Your task to perform on an android device: turn vacation reply on in the gmail app Image 0: 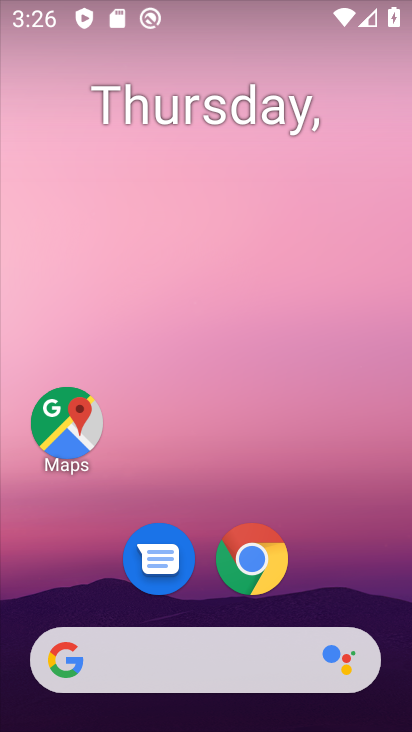
Step 0: drag from (340, 572) to (342, 196)
Your task to perform on an android device: turn vacation reply on in the gmail app Image 1: 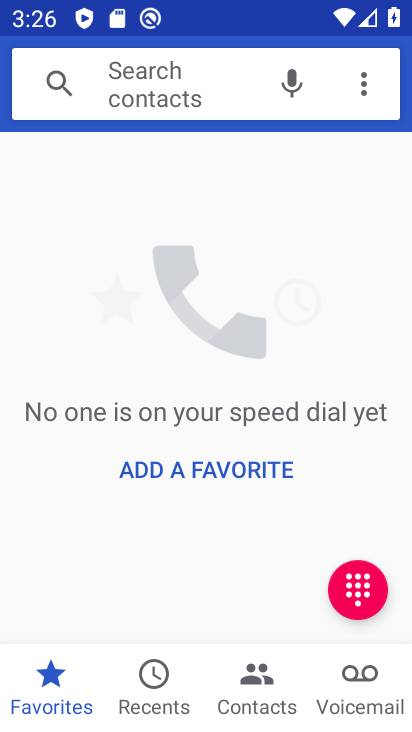
Step 1: press home button
Your task to perform on an android device: turn vacation reply on in the gmail app Image 2: 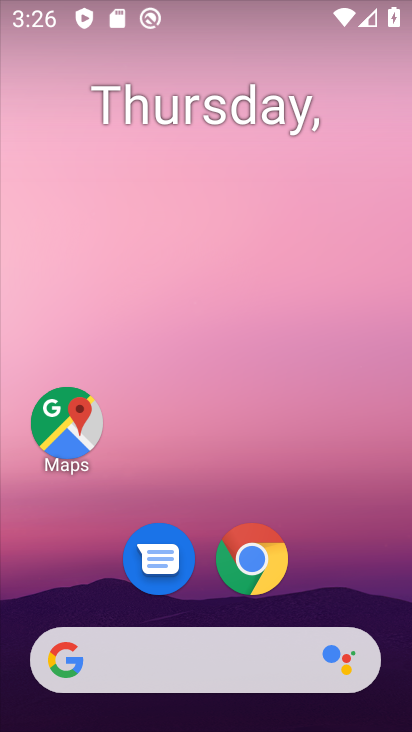
Step 2: drag from (293, 366) to (277, 143)
Your task to perform on an android device: turn vacation reply on in the gmail app Image 3: 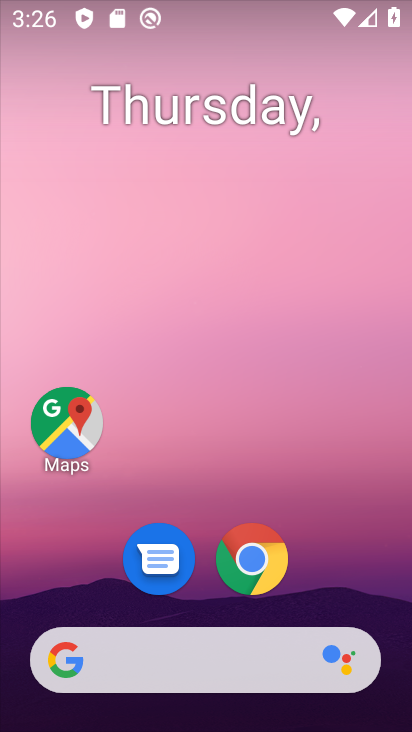
Step 3: drag from (319, 579) to (298, 249)
Your task to perform on an android device: turn vacation reply on in the gmail app Image 4: 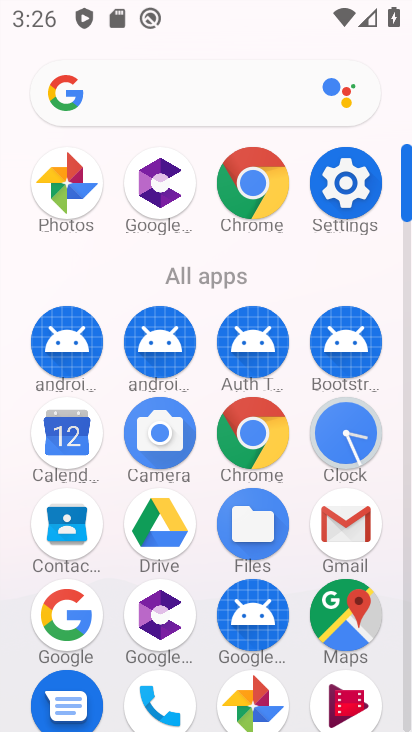
Step 4: click (354, 541)
Your task to perform on an android device: turn vacation reply on in the gmail app Image 5: 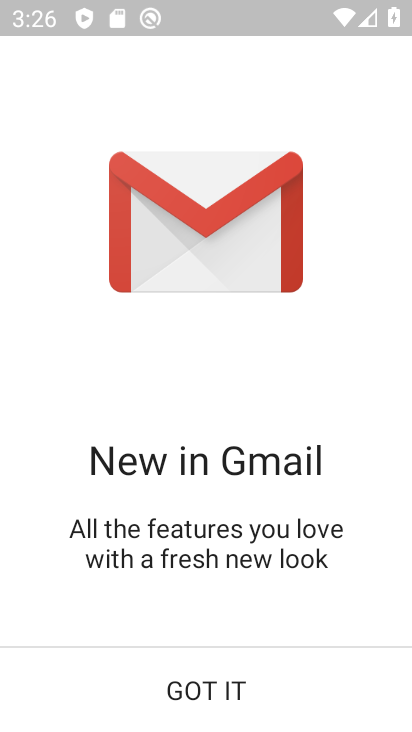
Step 5: click (210, 694)
Your task to perform on an android device: turn vacation reply on in the gmail app Image 6: 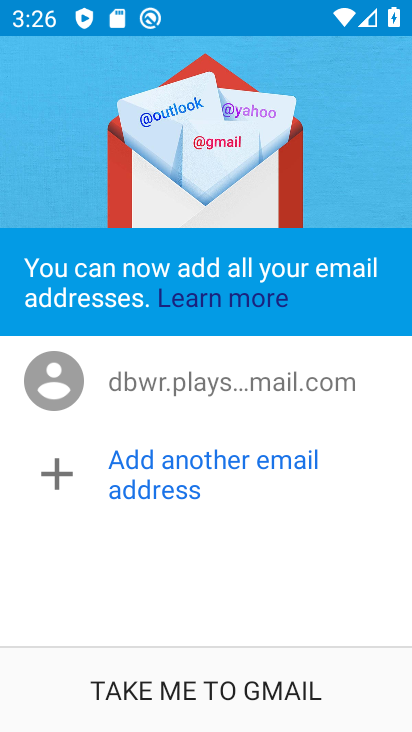
Step 6: click (228, 682)
Your task to perform on an android device: turn vacation reply on in the gmail app Image 7: 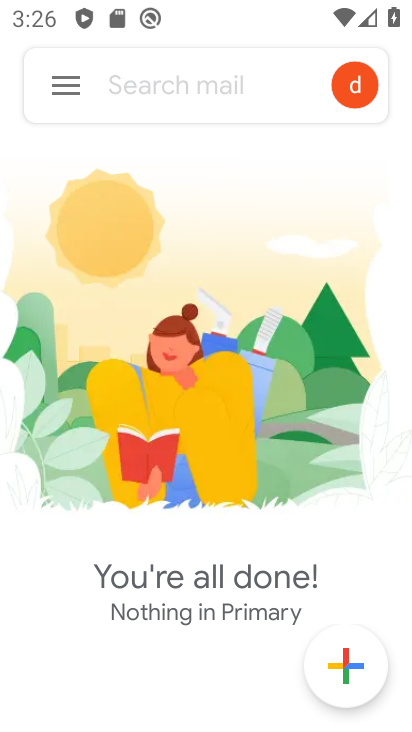
Step 7: click (67, 90)
Your task to perform on an android device: turn vacation reply on in the gmail app Image 8: 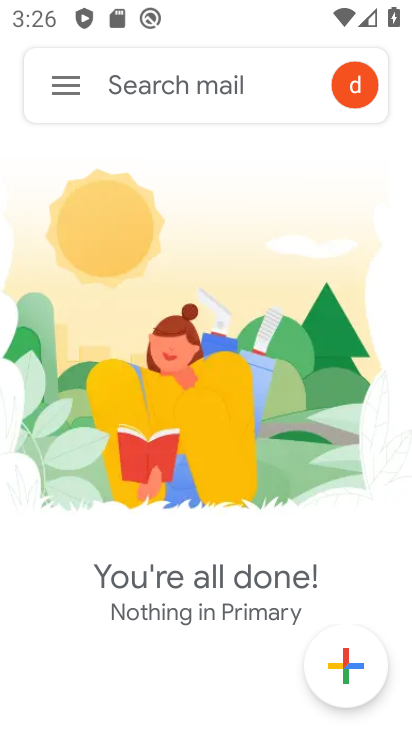
Step 8: click (75, 91)
Your task to perform on an android device: turn vacation reply on in the gmail app Image 9: 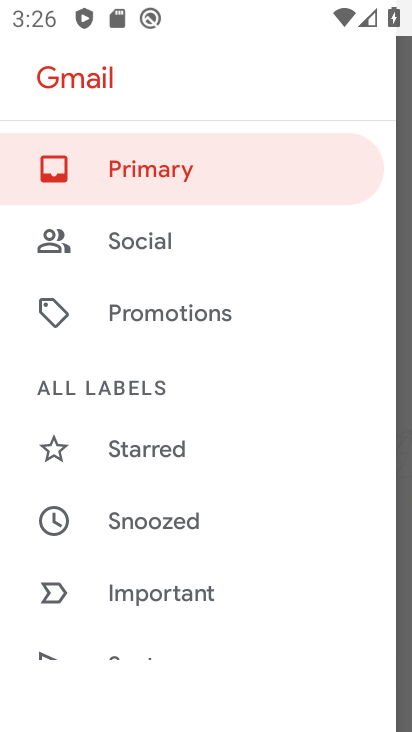
Step 9: drag from (236, 575) to (241, 232)
Your task to perform on an android device: turn vacation reply on in the gmail app Image 10: 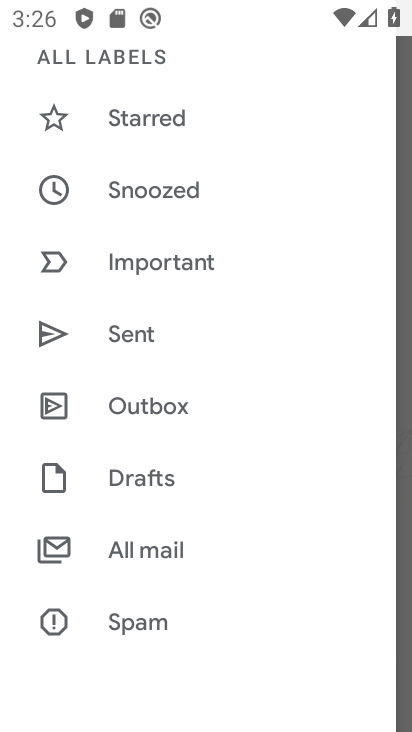
Step 10: drag from (249, 608) to (299, 177)
Your task to perform on an android device: turn vacation reply on in the gmail app Image 11: 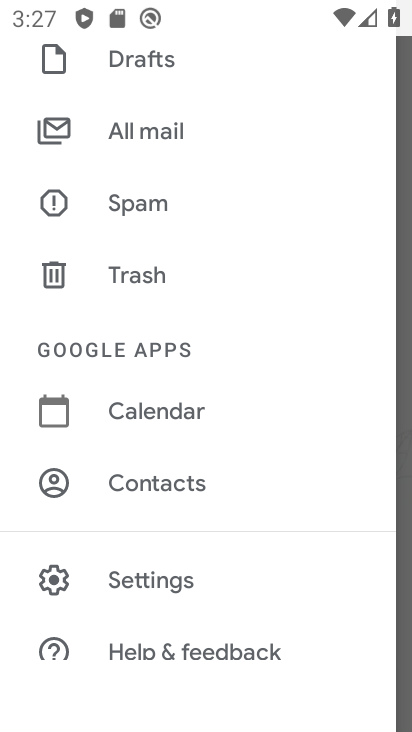
Step 11: click (174, 580)
Your task to perform on an android device: turn vacation reply on in the gmail app Image 12: 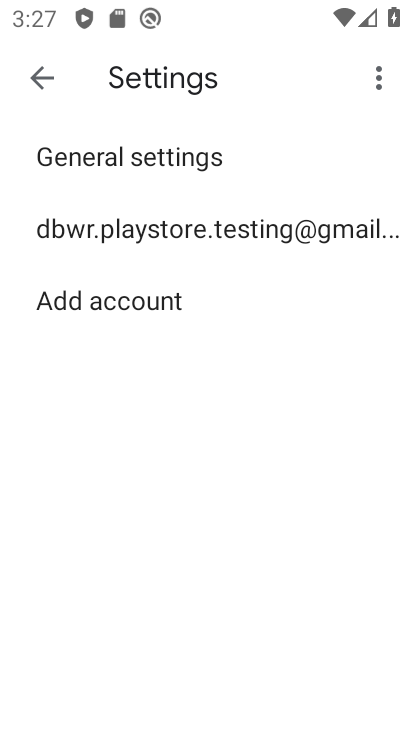
Step 12: click (170, 232)
Your task to perform on an android device: turn vacation reply on in the gmail app Image 13: 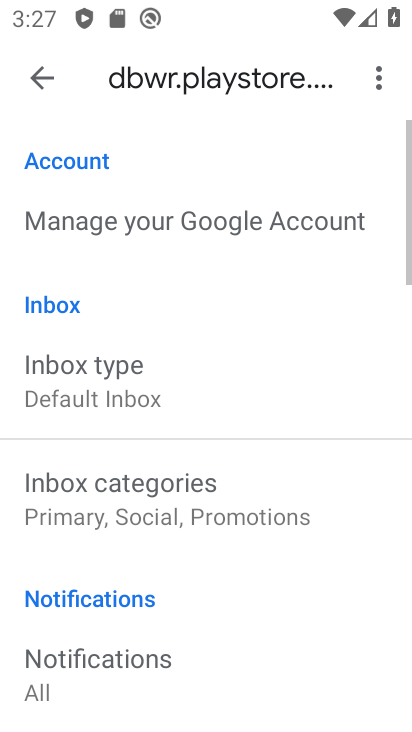
Step 13: drag from (227, 647) to (237, 229)
Your task to perform on an android device: turn vacation reply on in the gmail app Image 14: 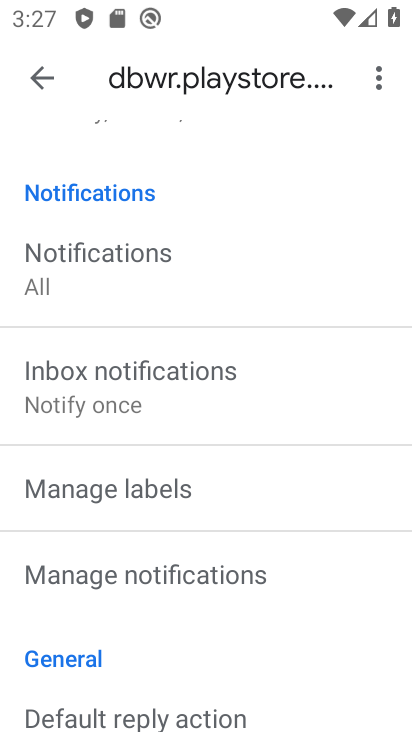
Step 14: drag from (192, 612) to (202, 247)
Your task to perform on an android device: turn vacation reply on in the gmail app Image 15: 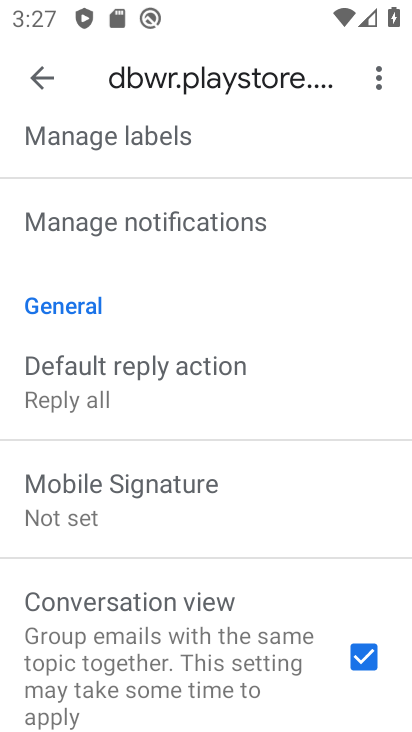
Step 15: drag from (245, 680) to (242, 290)
Your task to perform on an android device: turn vacation reply on in the gmail app Image 16: 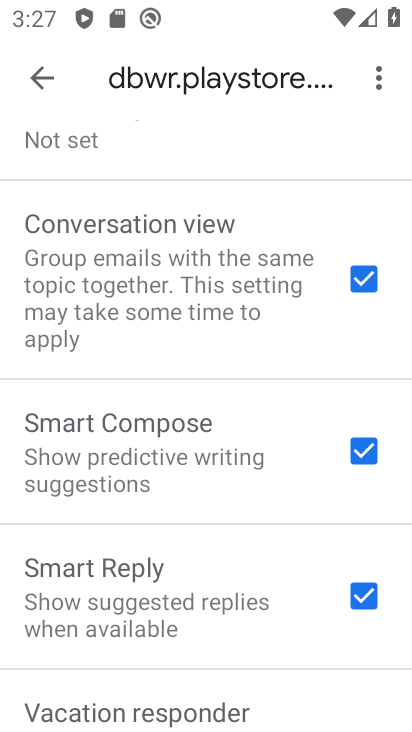
Step 16: drag from (208, 670) to (213, 326)
Your task to perform on an android device: turn vacation reply on in the gmail app Image 17: 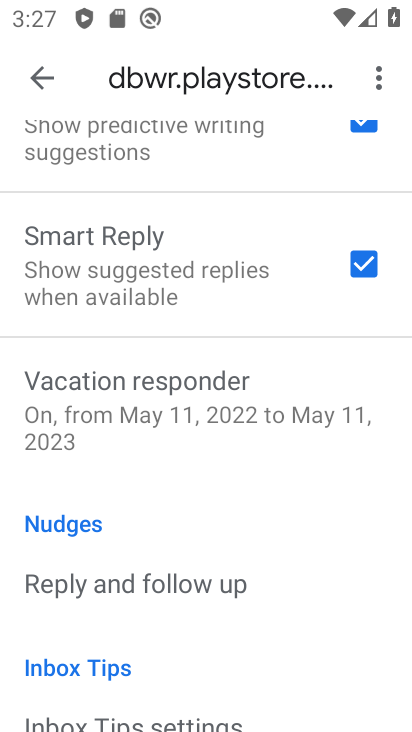
Step 17: click (219, 387)
Your task to perform on an android device: turn vacation reply on in the gmail app Image 18: 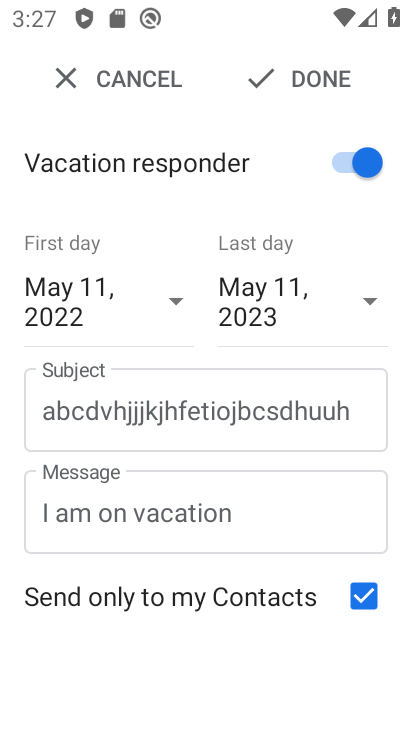
Step 18: click (340, 72)
Your task to perform on an android device: turn vacation reply on in the gmail app Image 19: 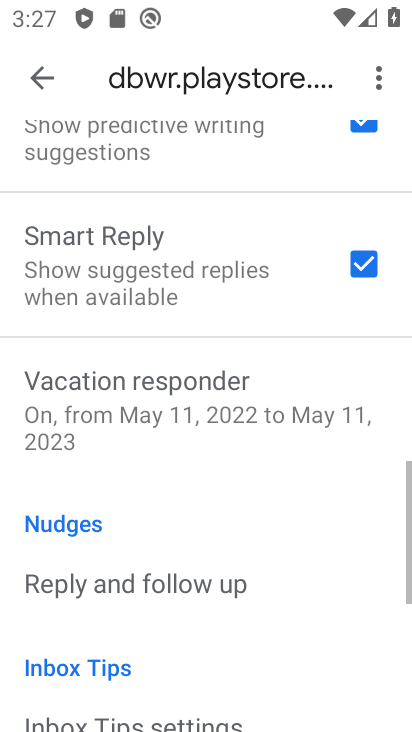
Step 19: task complete